Your task to perform on an android device: Open Google Image 0: 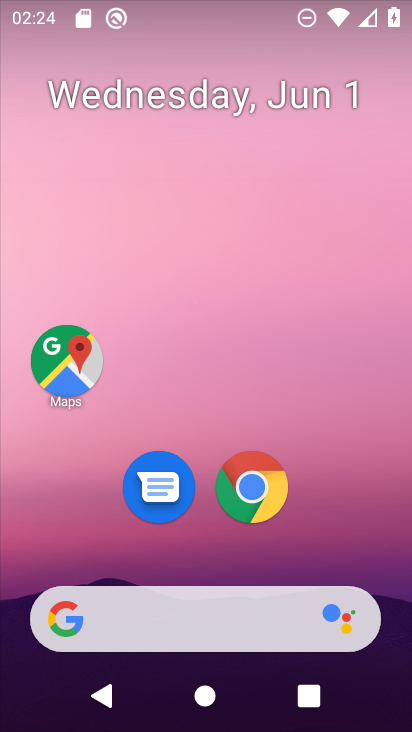
Step 0: drag from (305, 517) to (304, 205)
Your task to perform on an android device: Open Google Image 1: 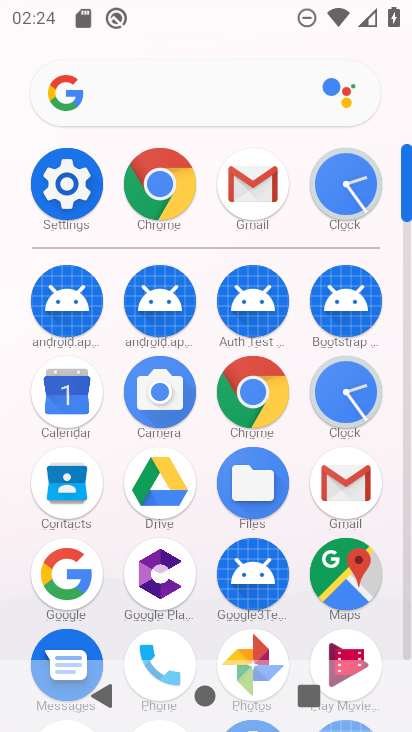
Step 1: drag from (215, 531) to (192, 288)
Your task to perform on an android device: Open Google Image 2: 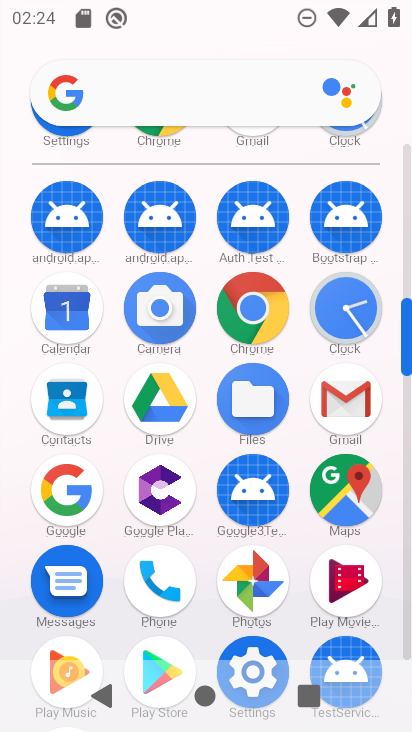
Step 2: click (65, 483)
Your task to perform on an android device: Open Google Image 3: 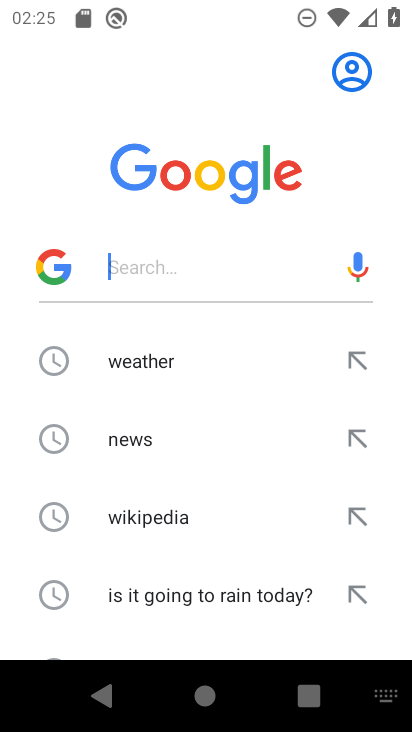
Step 3: task complete